Your task to perform on an android device: Set the phone to "Do not disturb". Image 0: 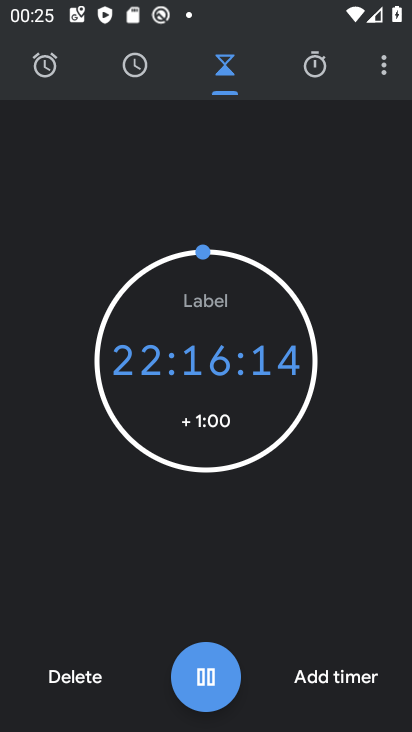
Step 0: press home button
Your task to perform on an android device: Set the phone to "Do not disturb". Image 1: 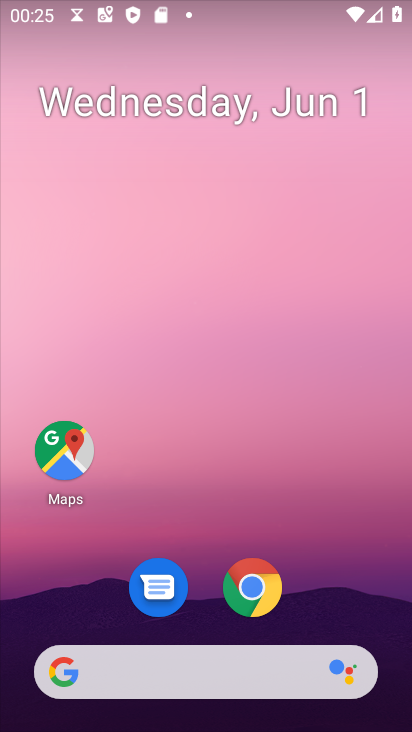
Step 1: drag from (324, 624) to (267, 23)
Your task to perform on an android device: Set the phone to "Do not disturb". Image 2: 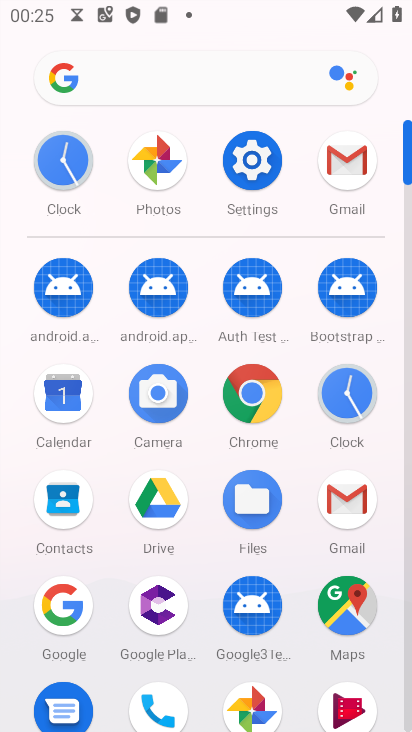
Step 2: click (267, 167)
Your task to perform on an android device: Set the phone to "Do not disturb". Image 3: 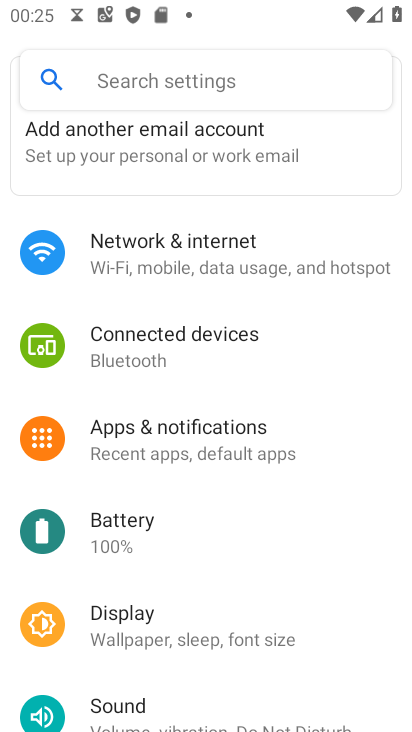
Step 3: drag from (152, 657) to (140, 338)
Your task to perform on an android device: Set the phone to "Do not disturb". Image 4: 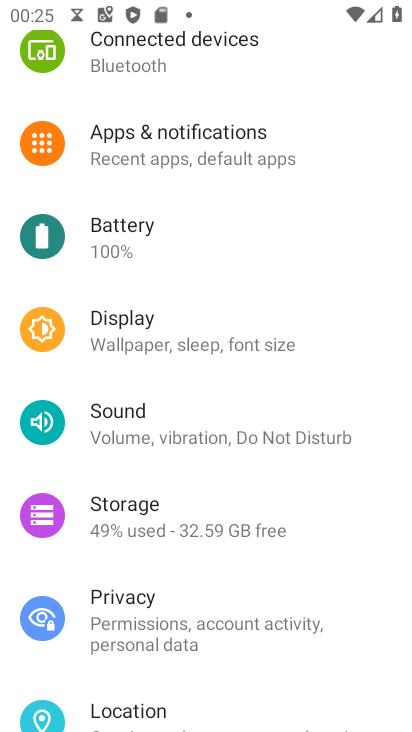
Step 4: click (212, 430)
Your task to perform on an android device: Set the phone to "Do not disturb". Image 5: 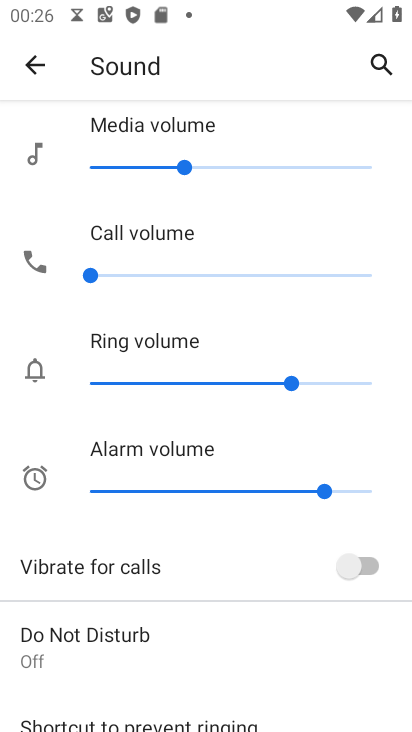
Step 5: click (112, 641)
Your task to perform on an android device: Set the phone to "Do not disturb". Image 6: 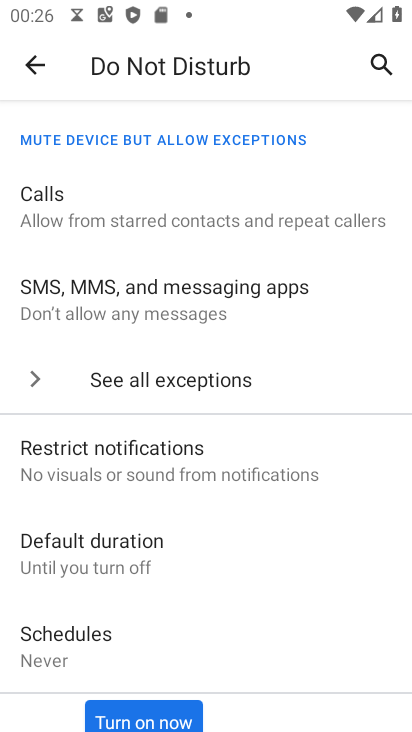
Step 6: click (168, 704)
Your task to perform on an android device: Set the phone to "Do not disturb". Image 7: 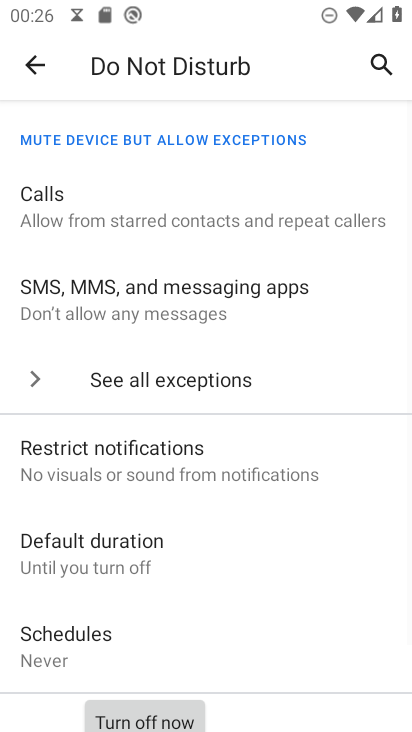
Step 7: task complete